Your task to perform on an android device: Search for seafood restaurants on Google Maps Image 0: 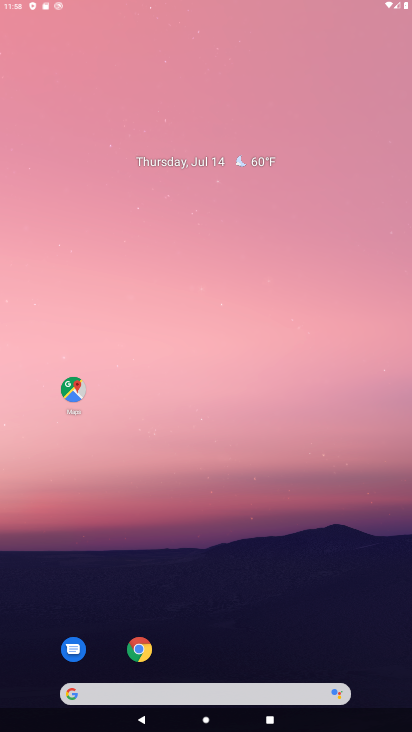
Step 0: drag from (218, 647) to (218, 267)
Your task to perform on an android device: Search for seafood restaurants on Google Maps Image 1: 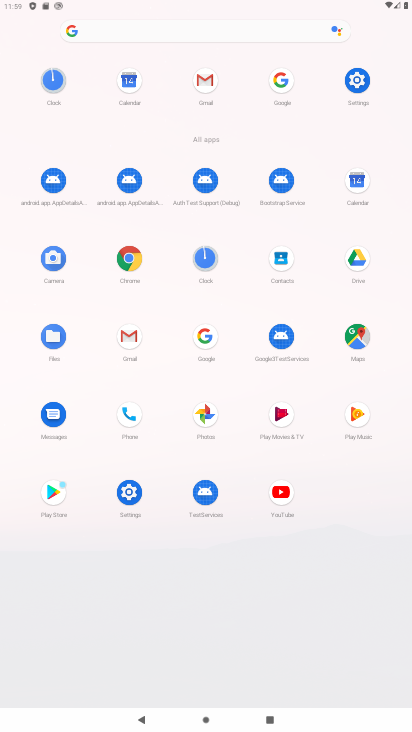
Step 1: click (354, 335)
Your task to perform on an android device: Search for seafood restaurants on Google Maps Image 2: 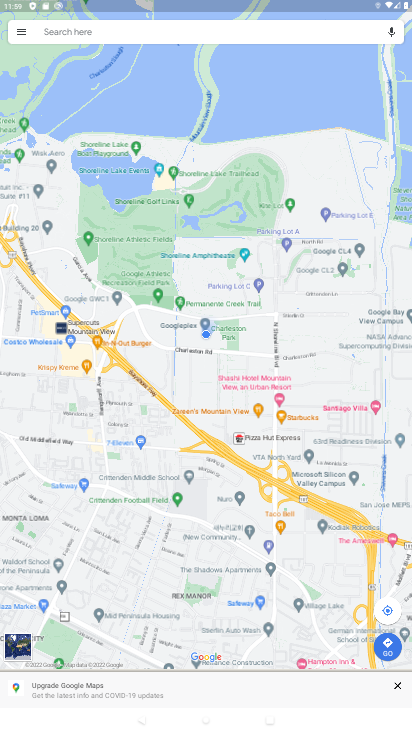
Step 2: task complete